Your task to perform on an android device: Go to Reddit.com Image 0: 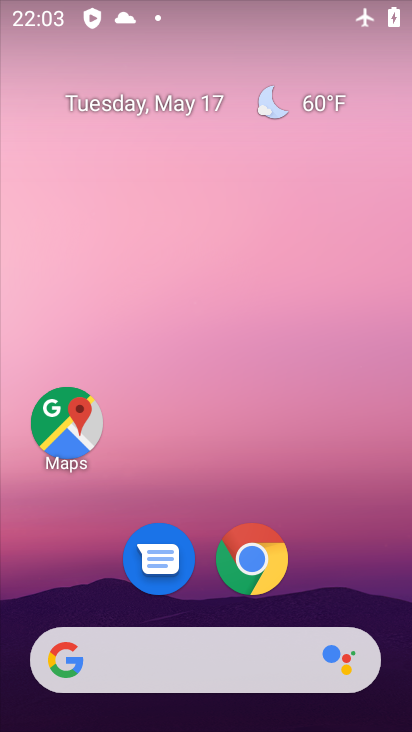
Step 0: click (253, 560)
Your task to perform on an android device: Go to Reddit.com Image 1: 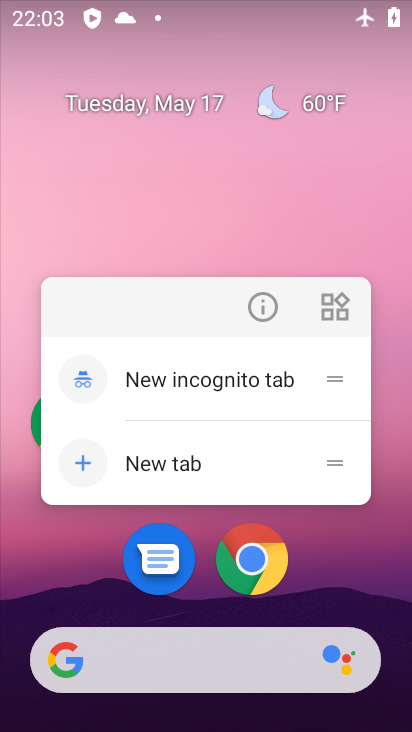
Step 1: click (250, 568)
Your task to perform on an android device: Go to Reddit.com Image 2: 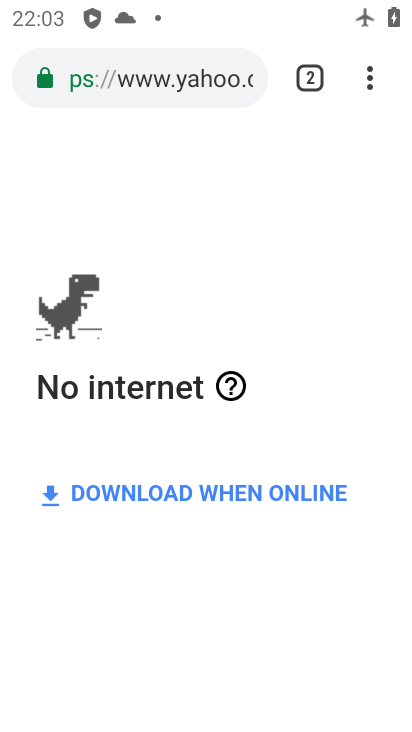
Step 2: click (193, 77)
Your task to perform on an android device: Go to Reddit.com Image 3: 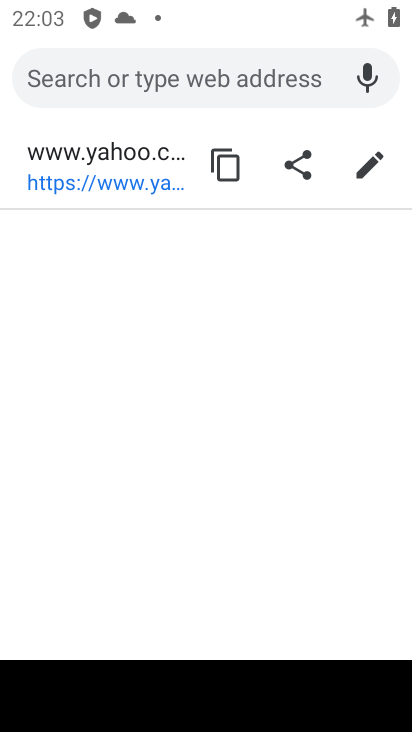
Step 3: type "reddit.com"
Your task to perform on an android device: Go to Reddit.com Image 4: 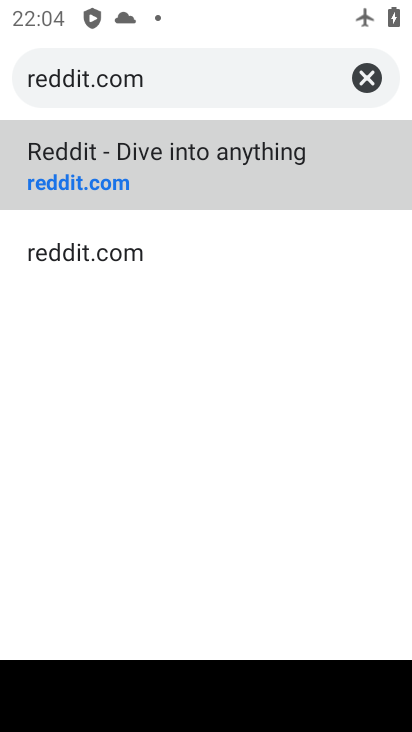
Step 4: click (94, 187)
Your task to perform on an android device: Go to Reddit.com Image 5: 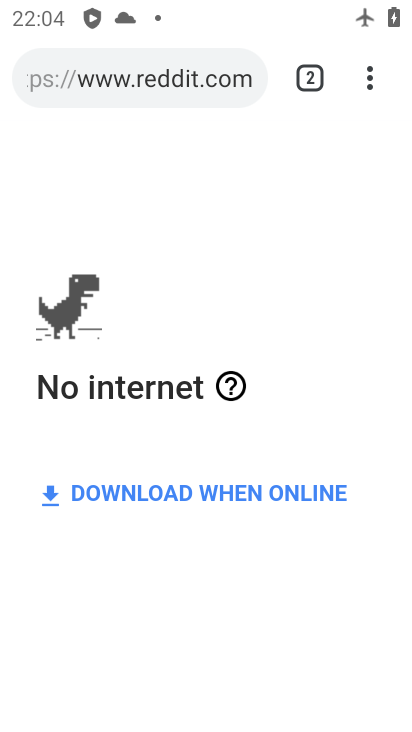
Step 5: task complete